Your task to perform on an android device: turn on sleep mode Image 0: 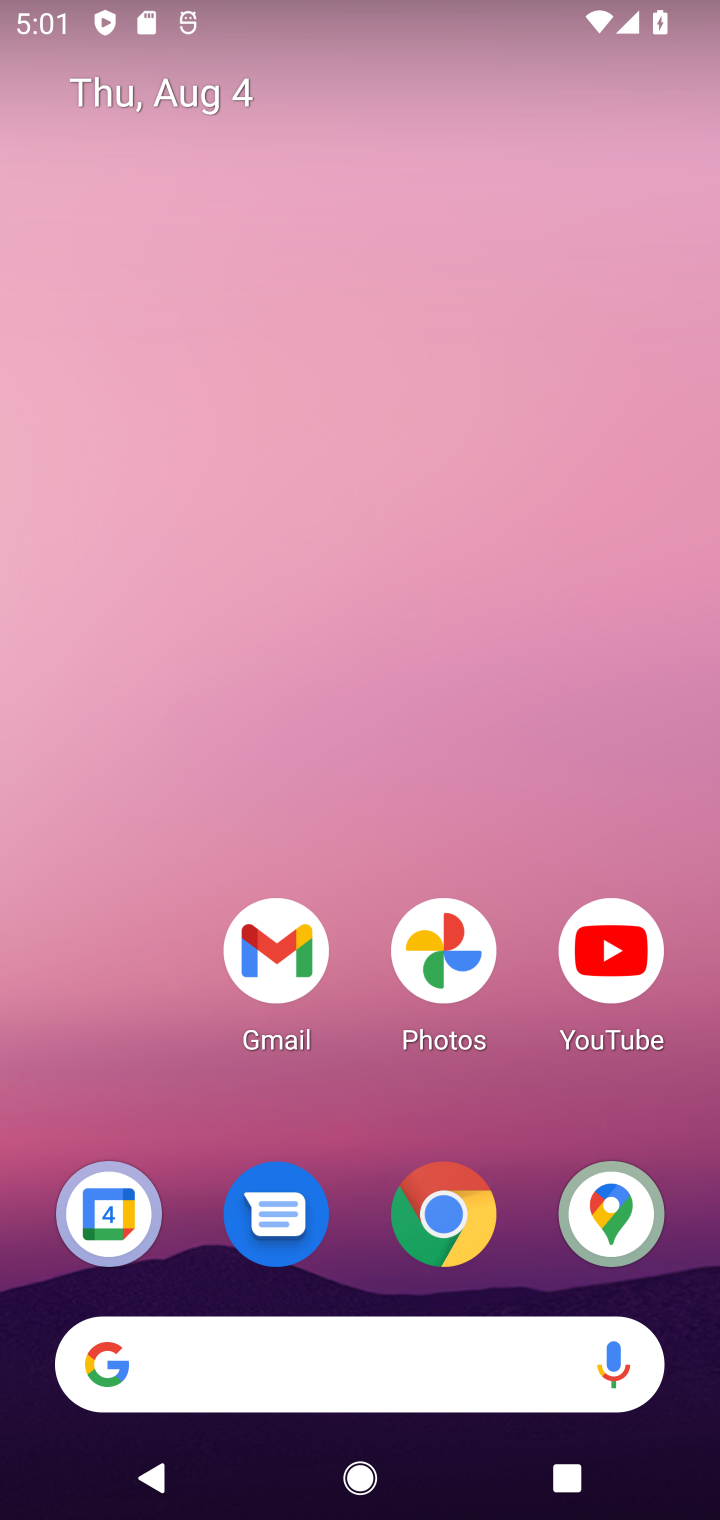
Step 0: drag from (542, 1088) to (508, 215)
Your task to perform on an android device: turn on sleep mode Image 1: 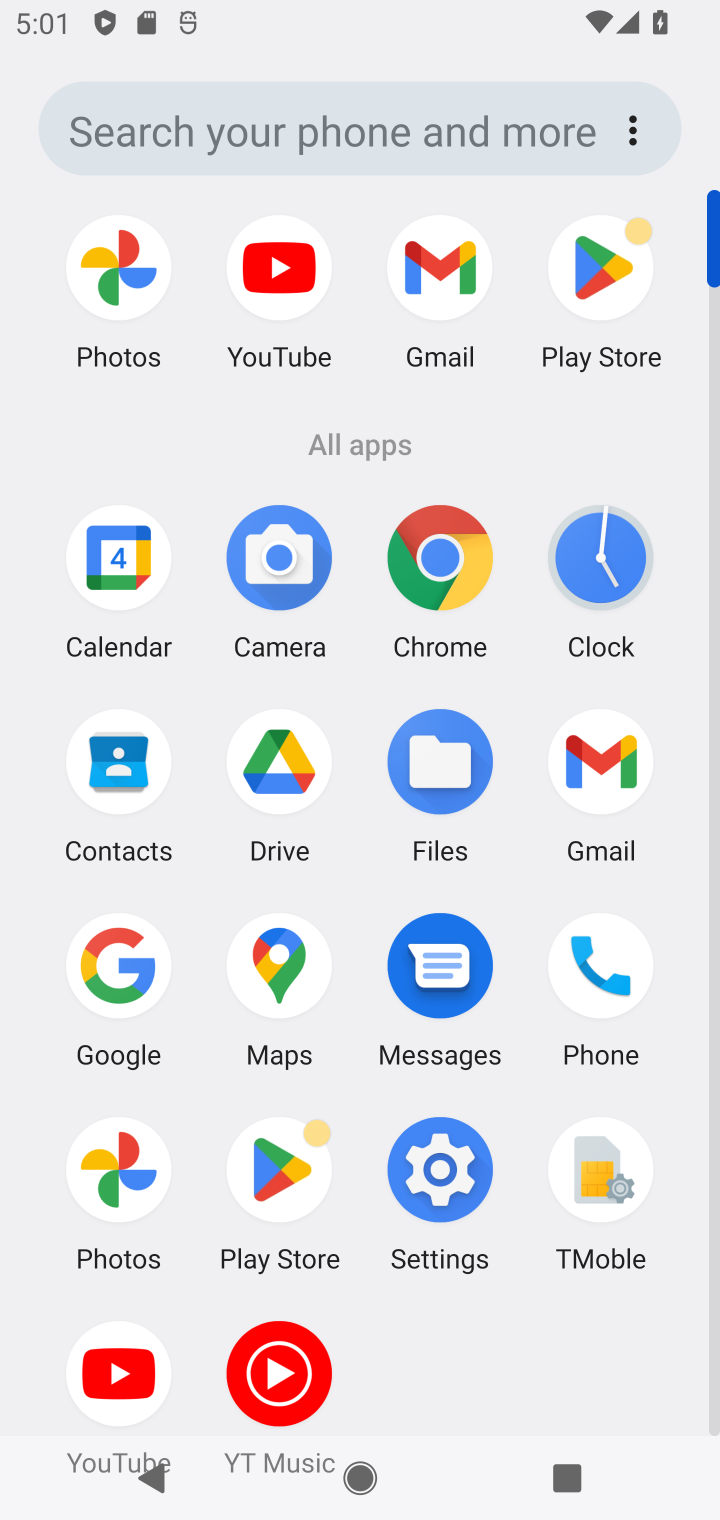
Step 1: click (431, 1196)
Your task to perform on an android device: turn on sleep mode Image 2: 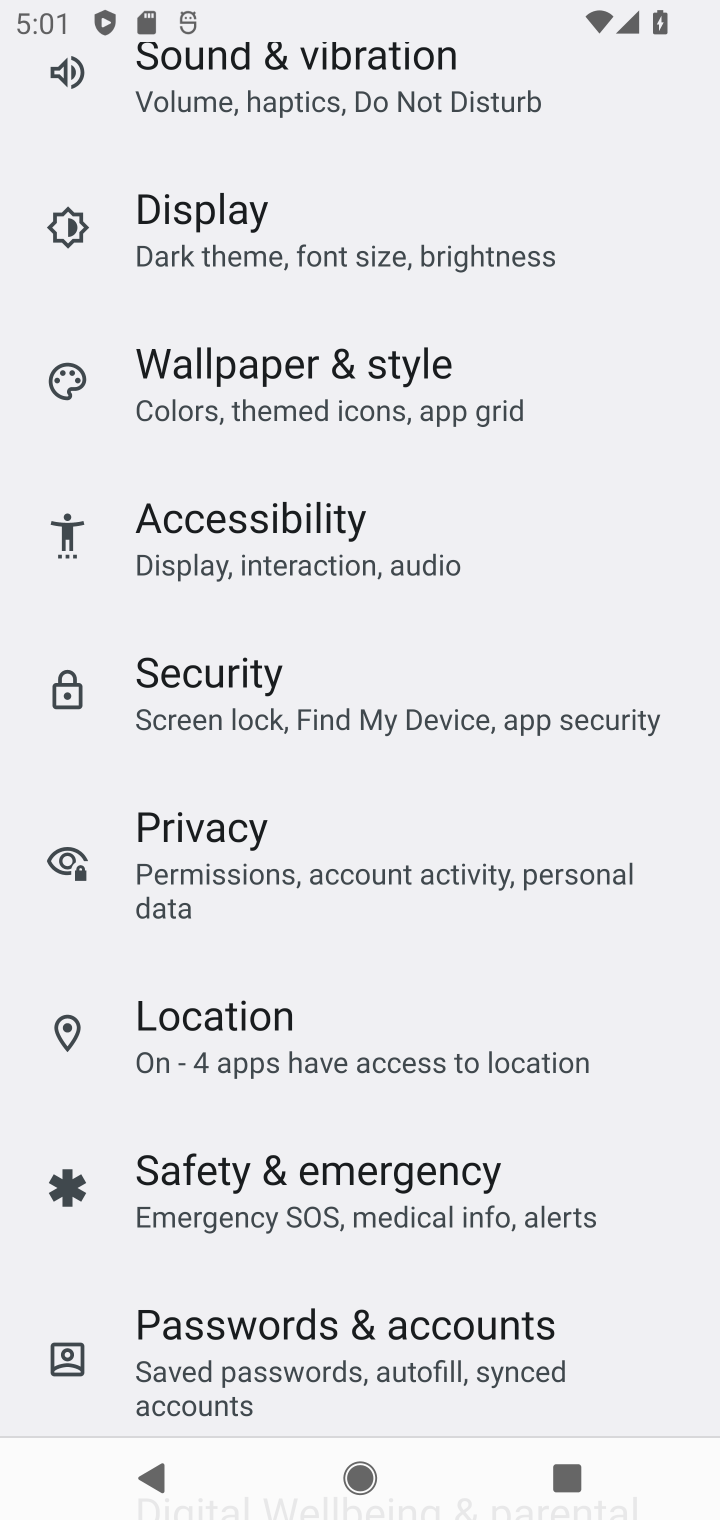
Step 2: click (390, 244)
Your task to perform on an android device: turn on sleep mode Image 3: 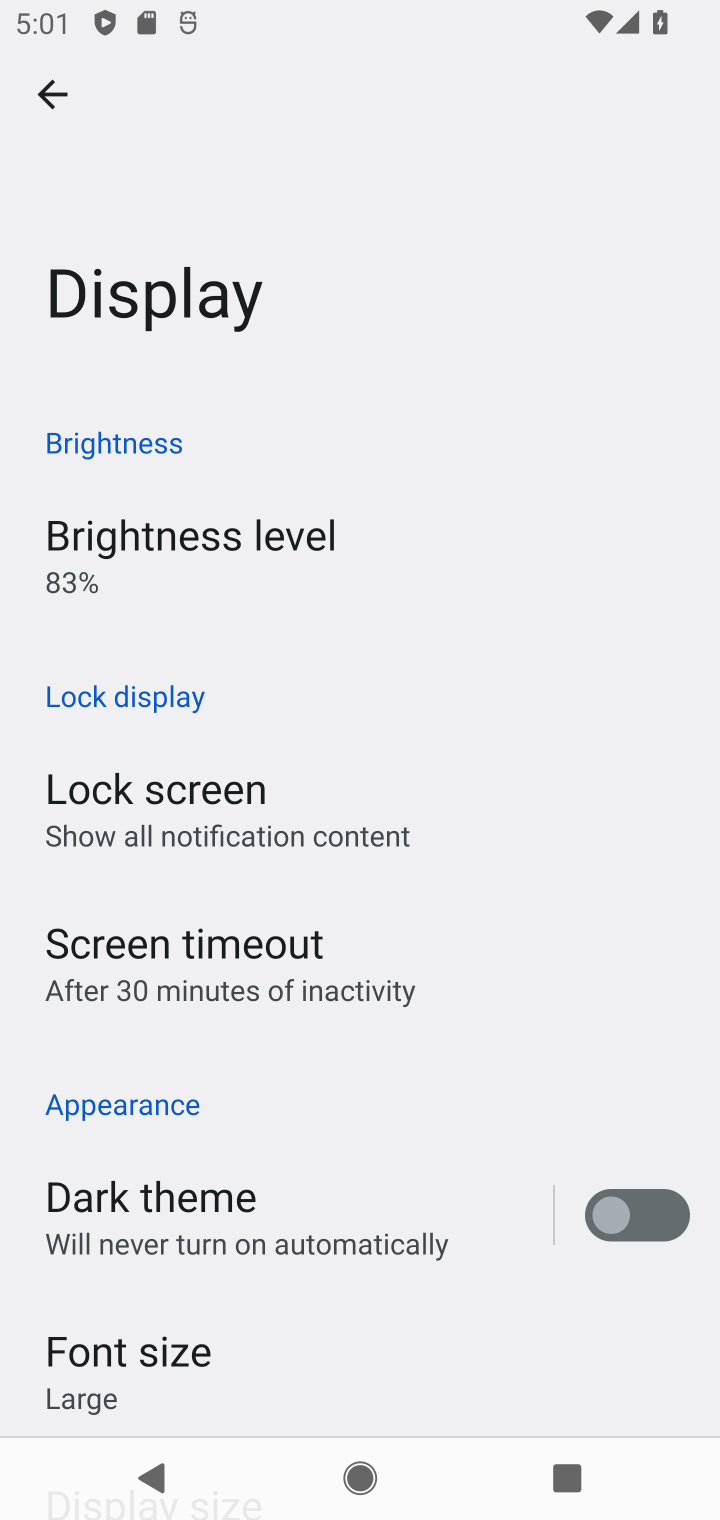
Step 3: task complete